Your task to perform on an android device: Do I have any events today? Image 0: 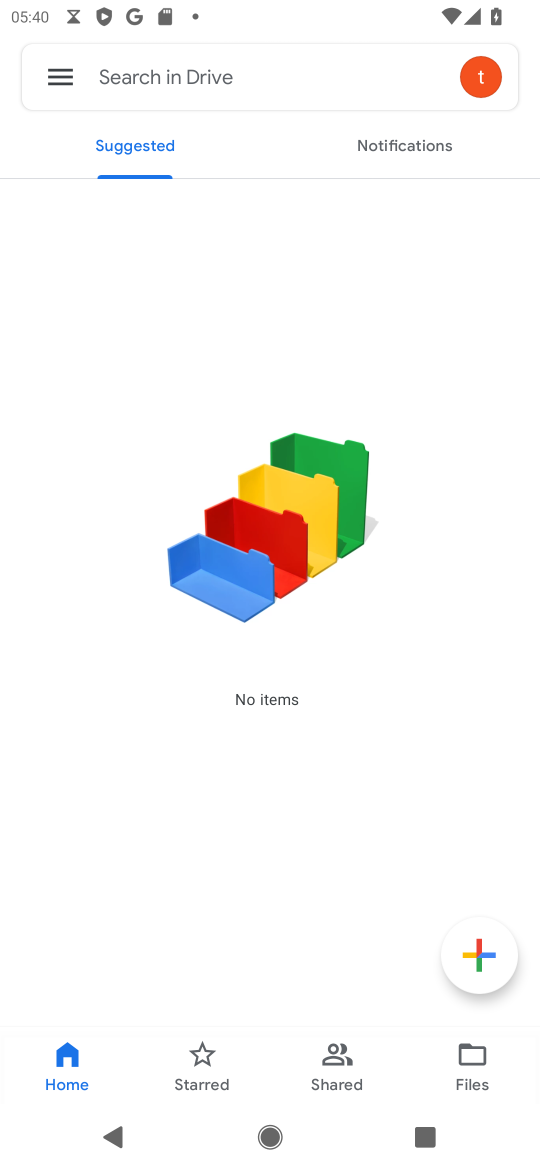
Step 0: press home button
Your task to perform on an android device: Do I have any events today? Image 1: 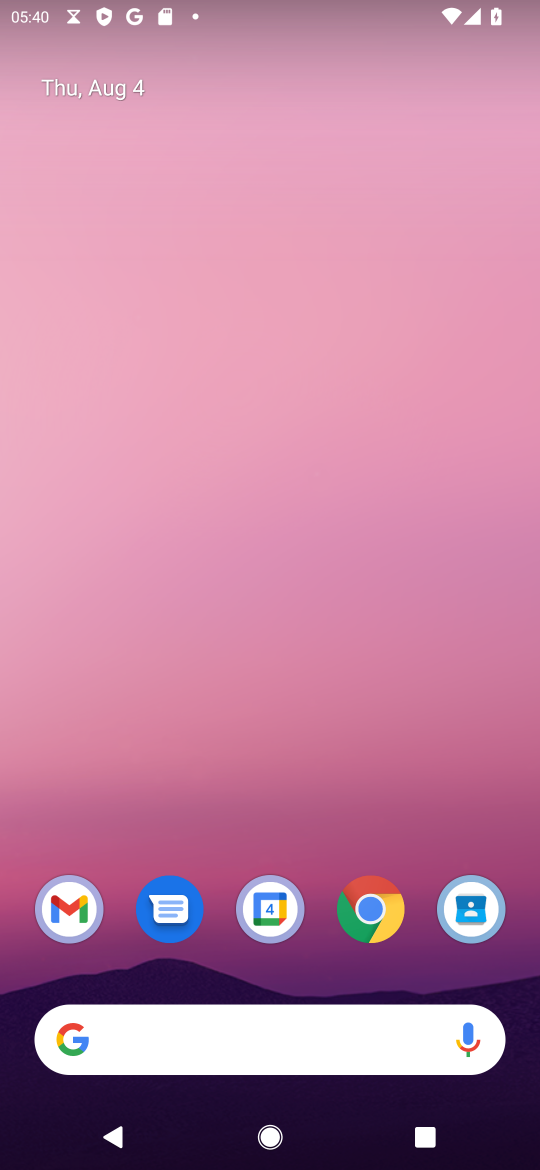
Step 1: click (263, 900)
Your task to perform on an android device: Do I have any events today? Image 2: 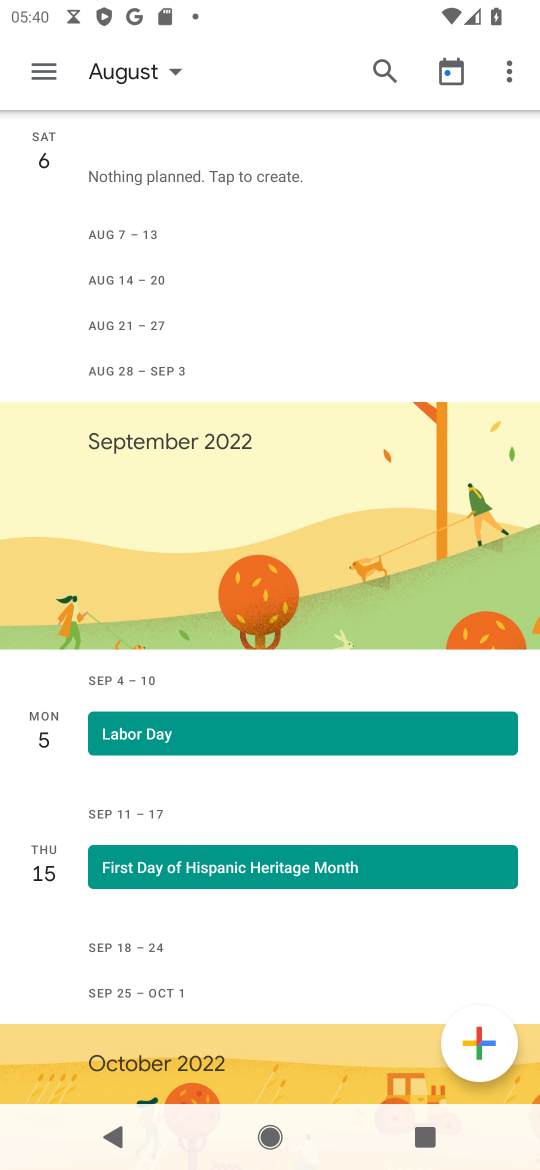
Step 2: click (123, 66)
Your task to perform on an android device: Do I have any events today? Image 3: 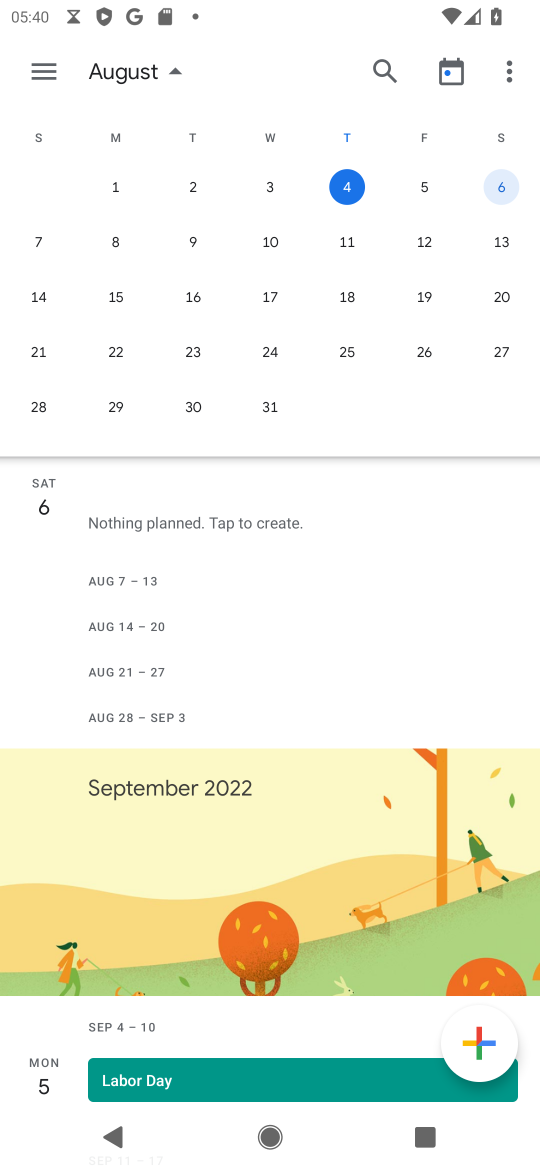
Step 3: click (345, 186)
Your task to perform on an android device: Do I have any events today? Image 4: 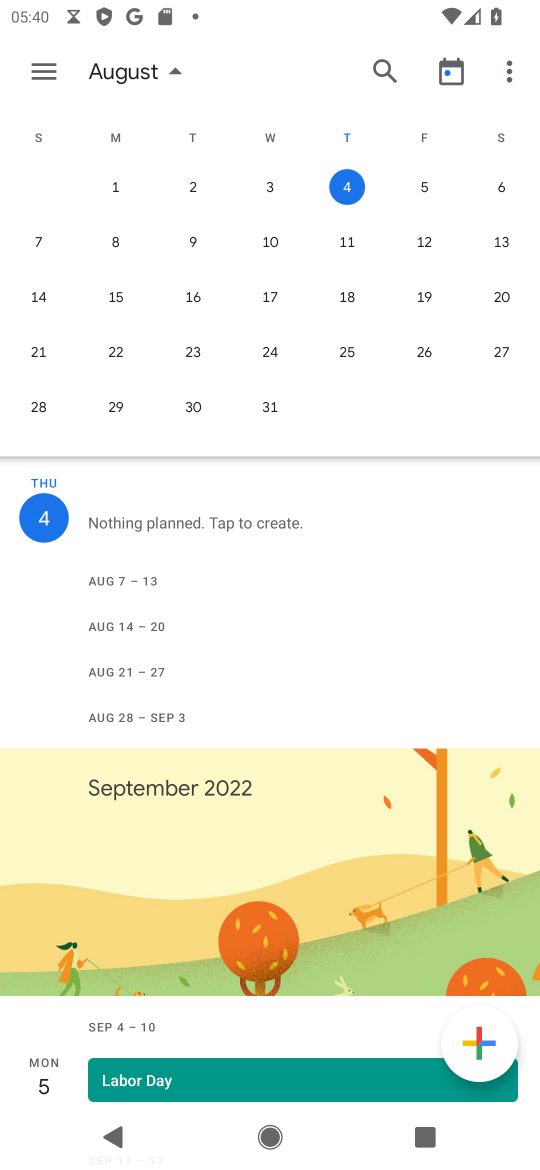
Step 4: click (37, 61)
Your task to perform on an android device: Do I have any events today? Image 5: 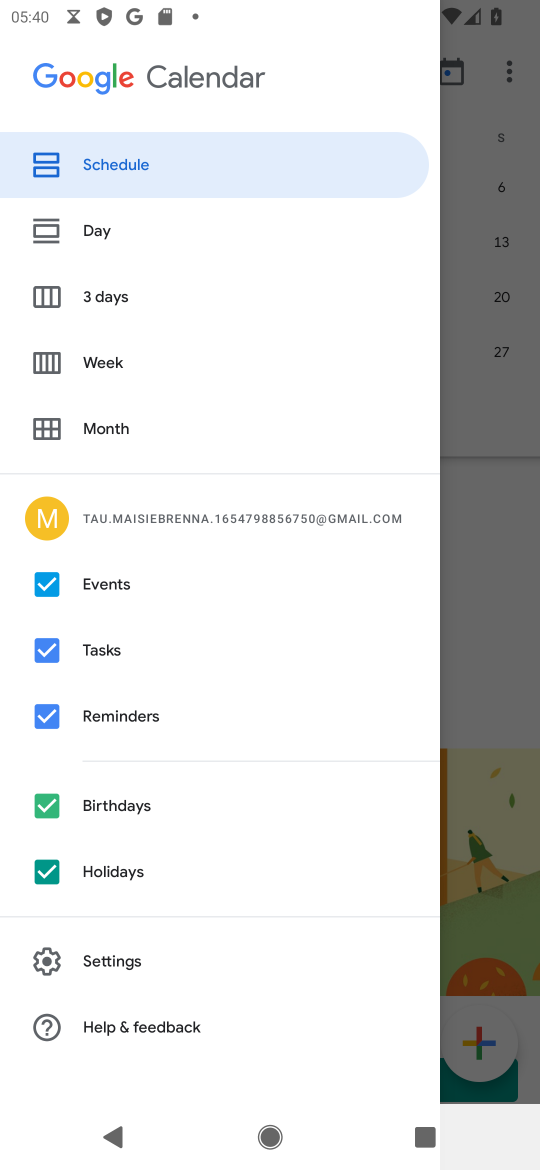
Step 5: click (99, 242)
Your task to perform on an android device: Do I have any events today? Image 6: 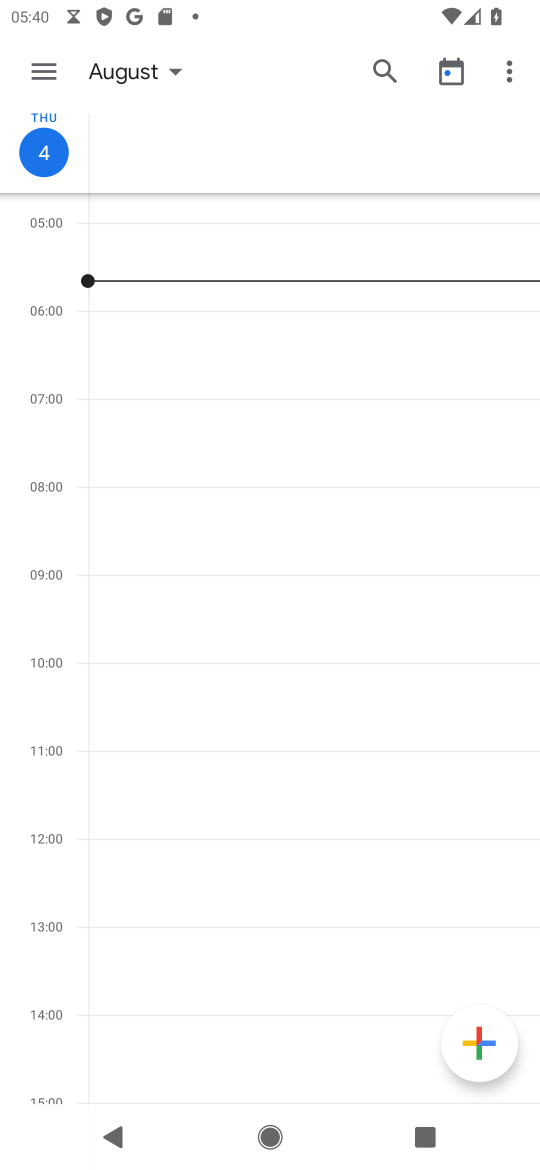
Step 6: task complete